Your task to perform on an android device: Go to Reddit.com Image 0: 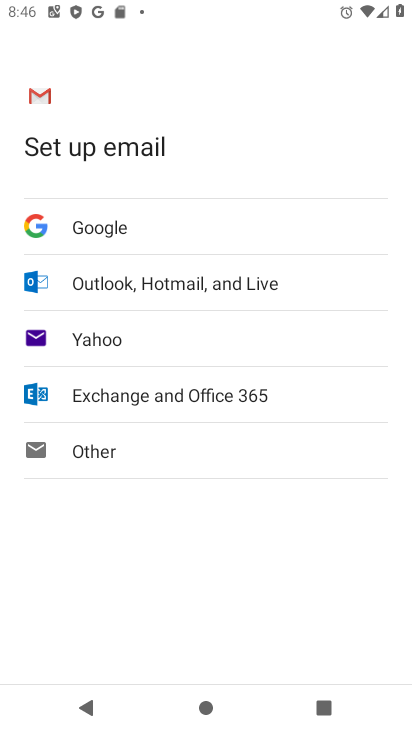
Step 0: press back button
Your task to perform on an android device: Go to Reddit.com Image 1: 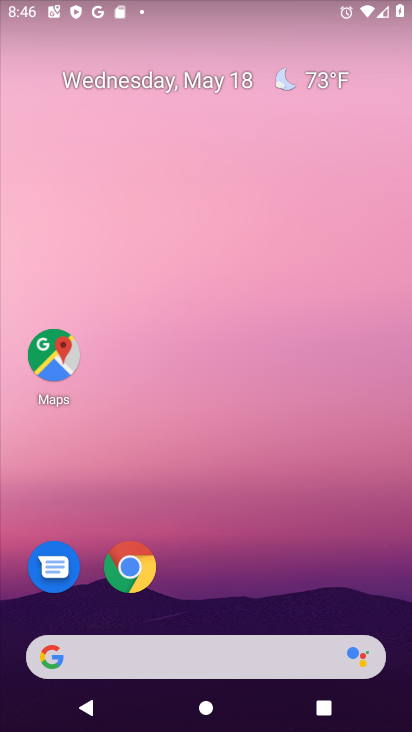
Step 1: drag from (216, 466) to (214, 29)
Your task to perform on an android device: Go to Reddit.com Image 2: 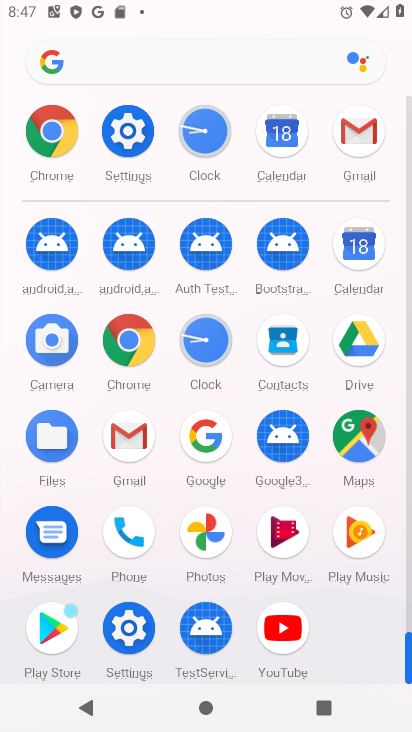
Step 2: click (126, 335)
Your task to perform on an android device: Go to Reddit.com Image 3: 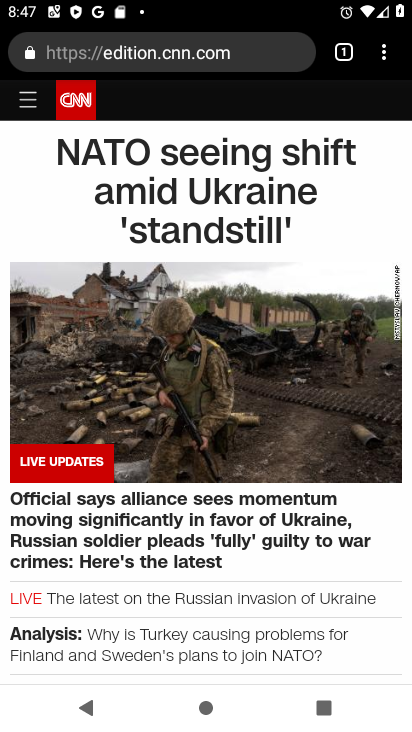
Step 3: click (176, 54)
Your task to perform on an android device: Go to Reddit.com Image 4: 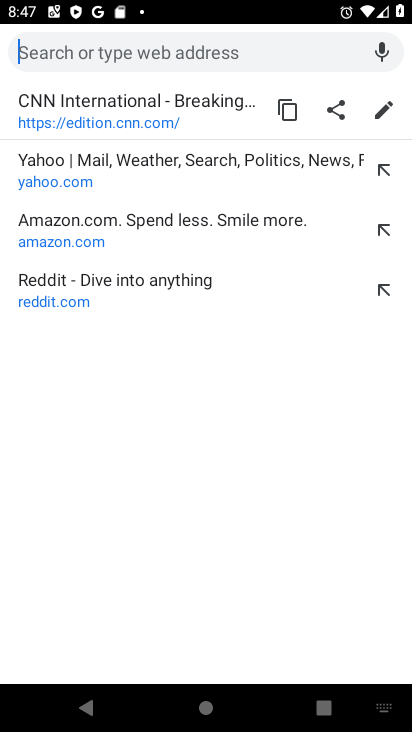
Step 4: click (220, 292)
Your task to perform on an android device: Go to Reddit.com Image 5: 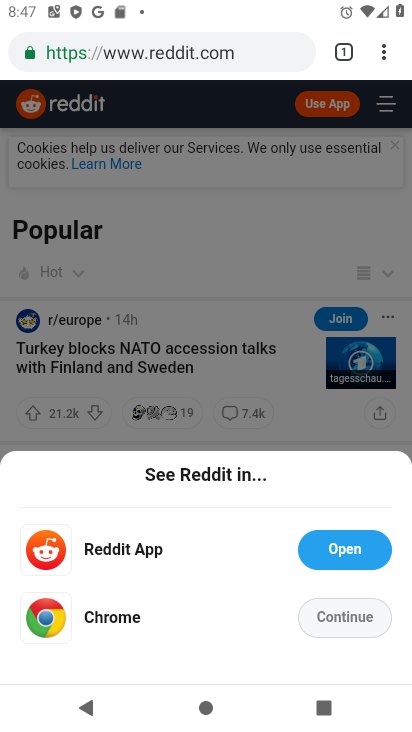
Step 5: task complete